Your task to perform on an android device: Do I have any events tomorrow? Image 0: 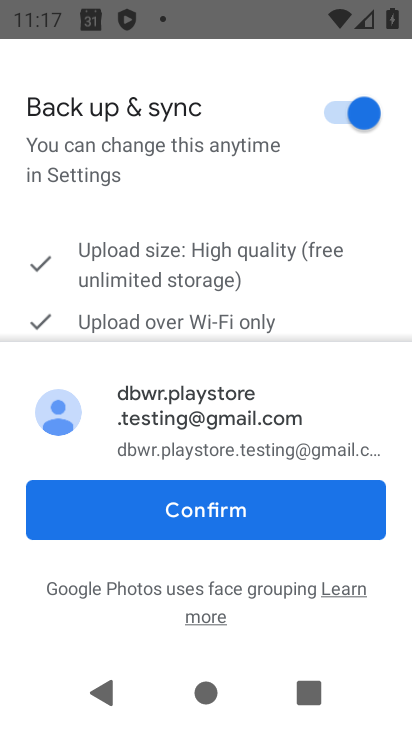
Step 0: press back button
Your task to perform on an android device: Do I have any events tomorrow? Image 1: 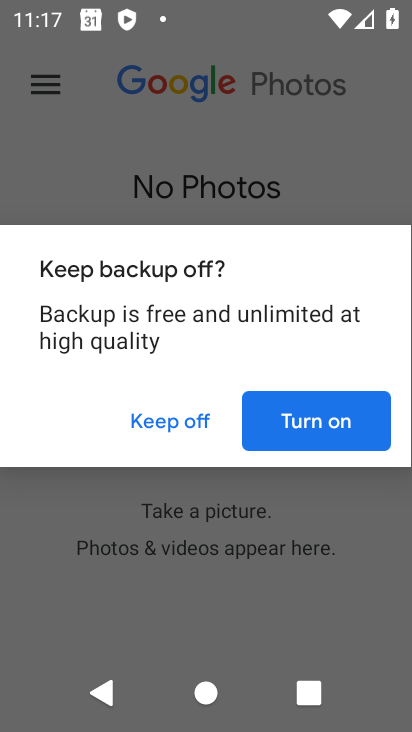
Step 1: press back button
Your task to perform on an android device: Do I have any events tomorrow? Image 2: 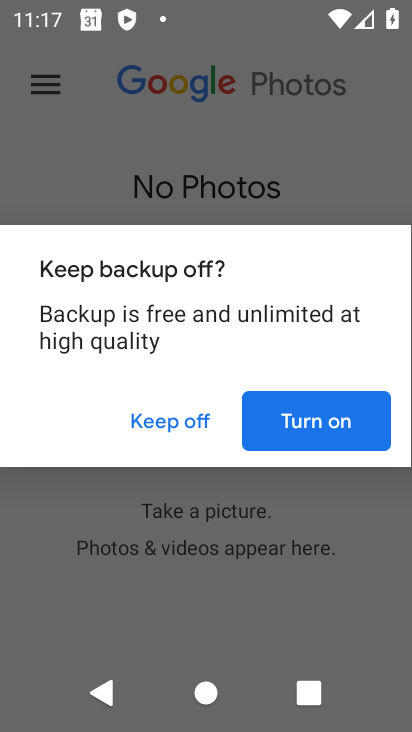
Step 2: click (168, 421)
Your task to perform on an android device: Do I have any events tomorrow? Image 3: 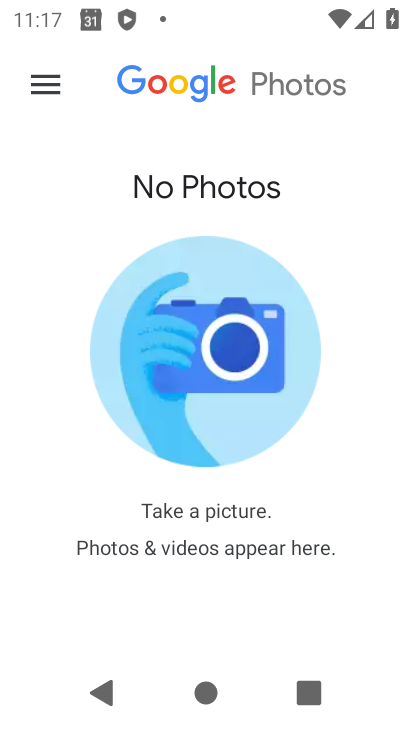
Step 3: press back button
Your task to perform on an android device: Do I have any events tomorrow? Image 4: 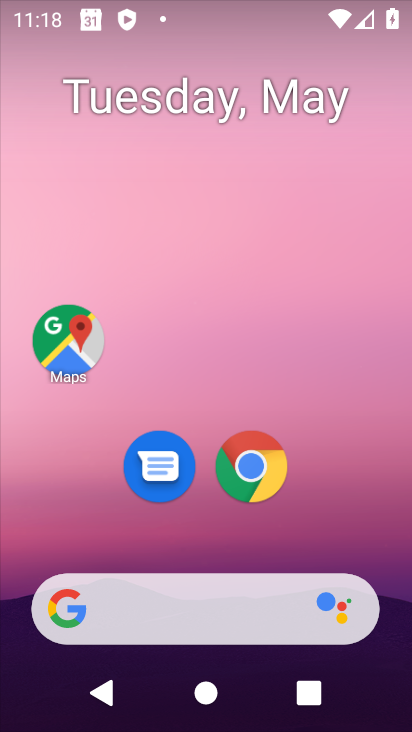
Step 4: drag from (202, 538) to (286, 46)
Your task to perform on an android device: Do I have any events tomorrow? Image 5: 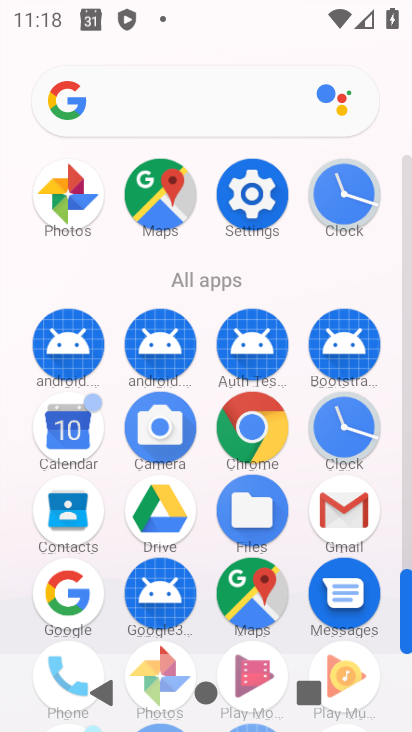
Step 5: click (74, 435)
Your task to perform on an android device: Do I have any events tomorrow? Image 6: 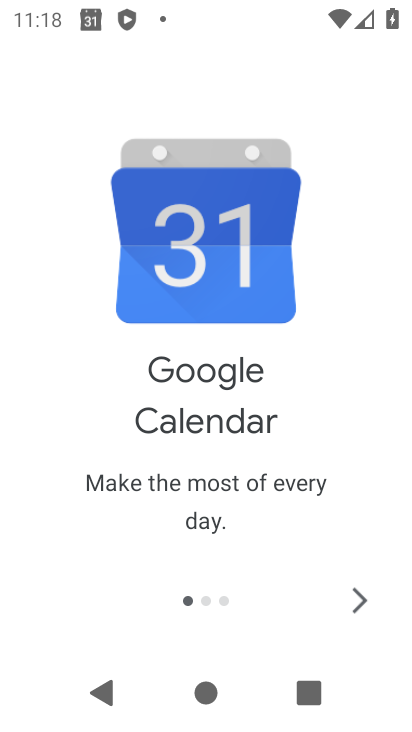
Step 6: click (354, 598)
Your task to perform on an android device: Do I have any events tomorrow? Image 7: 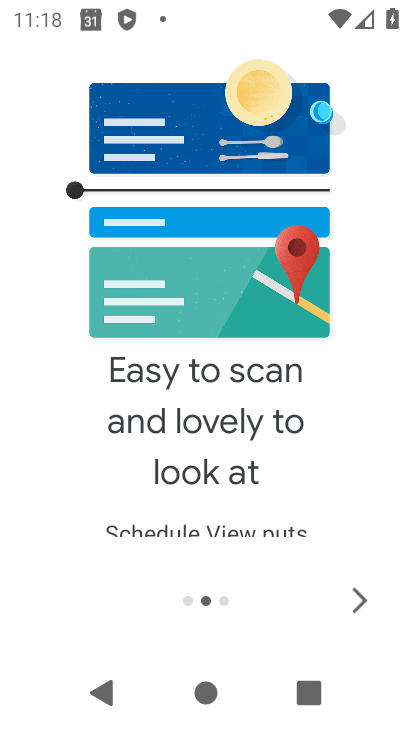
Step 7: click (357, 598)
Your task to perform on an android device: Do I have any events tomorrow? Image 8: 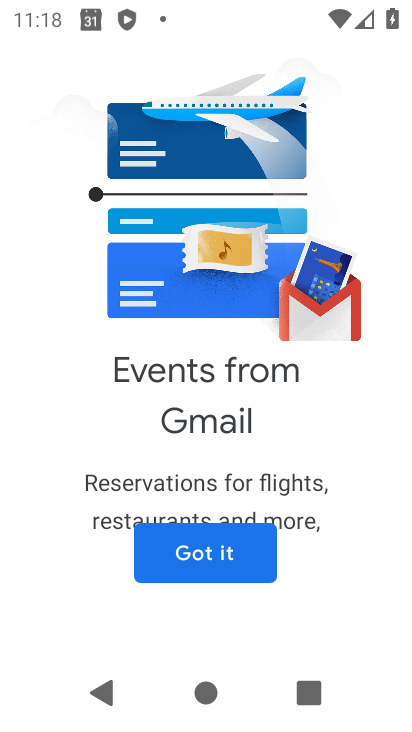
Step 8: click (203, 557)
Your task to perform on an android device: Do I have any events tomorrow? Image 9: 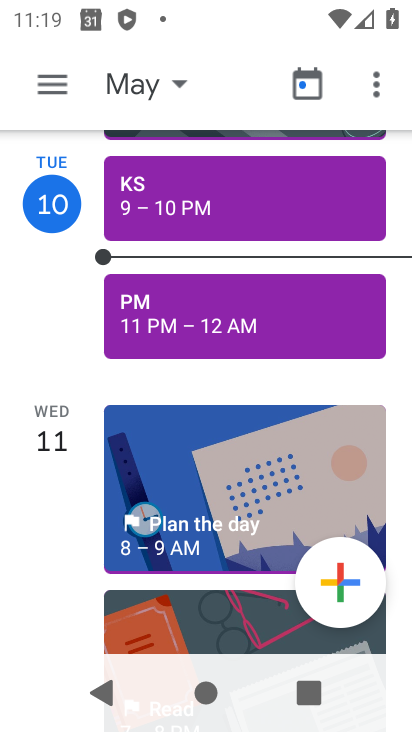
Step 9: drag from (223, 560) to (292, 184)
Your task to perform on an android device: Do I have any events tomorrow? Image 10: 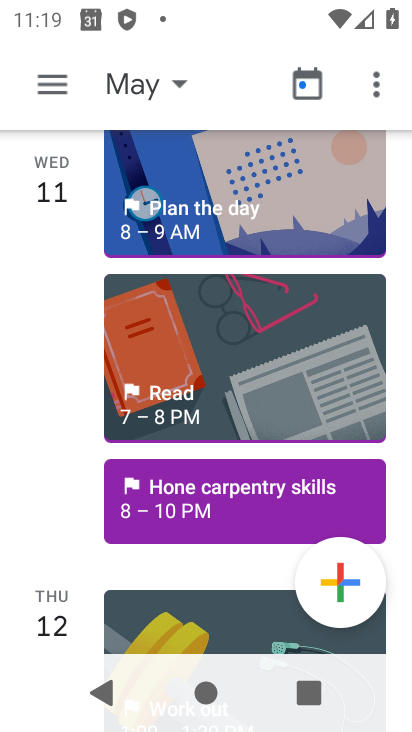
Step 10: drag from (200, 534) to (272, 112)
Your task to perform on an android device: Do I have any events tomorrow? Image 11: 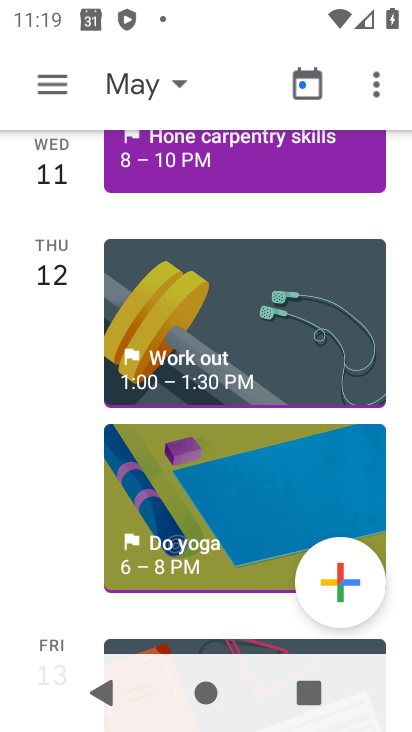
Step 11: click (152, 552)
Your task to perform on an android device: Do I have any events tomorrow? Image 12: 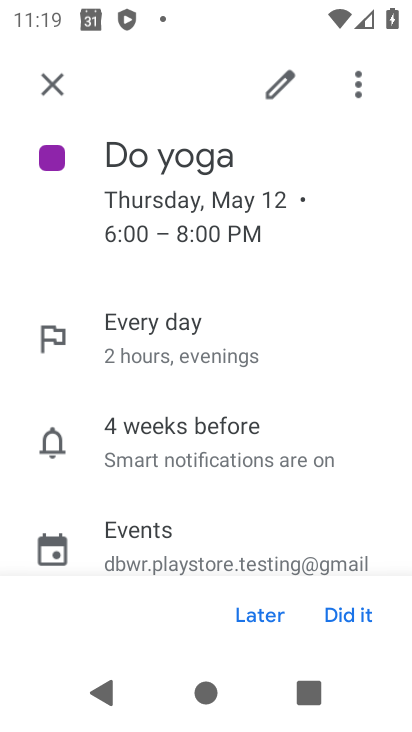
Step 12: task complete